Your task to perform on an android device: open chrome privacy settings Image 0: 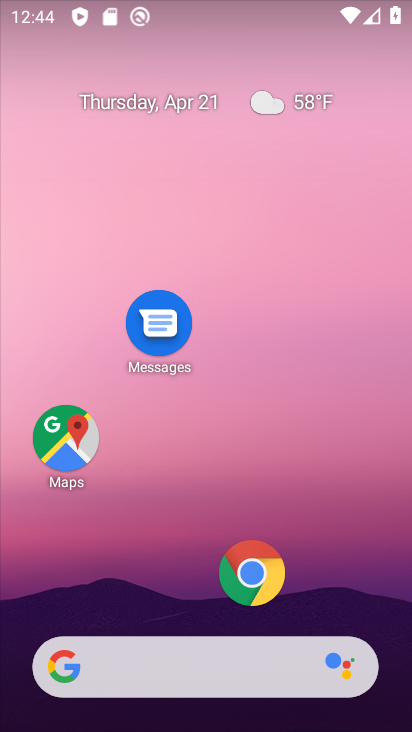
Step 0: click (252, 575)
Your task to perform on an android device: open chrome privacy settings Image 1: 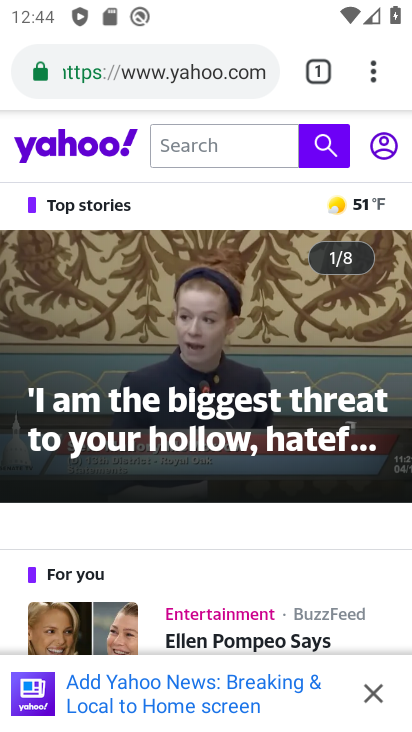
Step 1: click (375, 72)
Your task to perform on an android device: open chrome privacy settings Image 2: 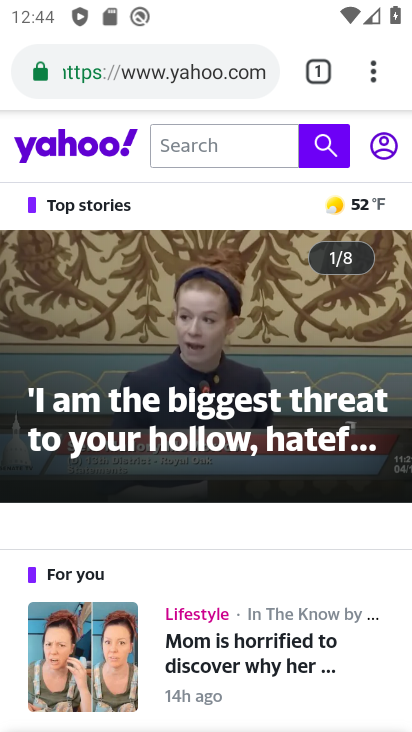
Step 2: click (369, 69)
Your task to perform on an android device: open chrome privacy settings Image 3: 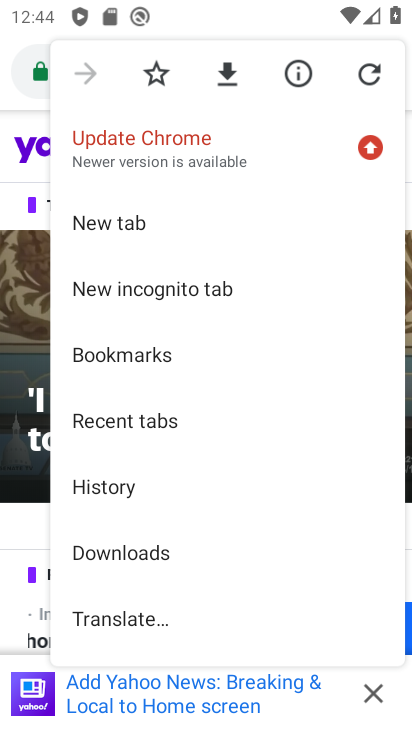
Step 3: drag from (208, 411) to (261, 119)
Your task to perform on an android device: open chrome privacy settings Image 4: 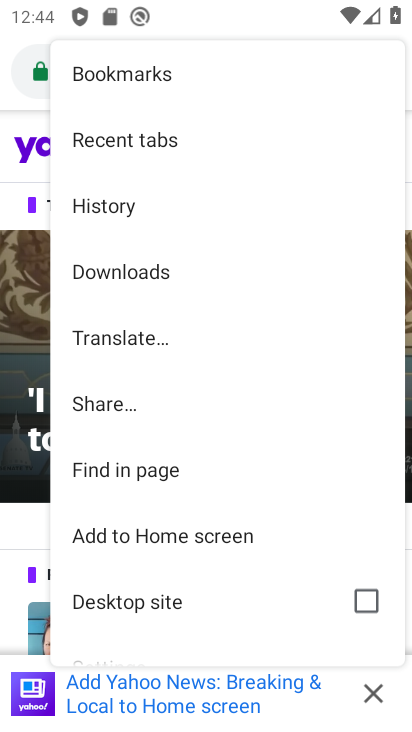
Step 4: drag from (165, 573) to (220, 132)
Your task to perform on an android device: open chrome privacy settings Image 5: 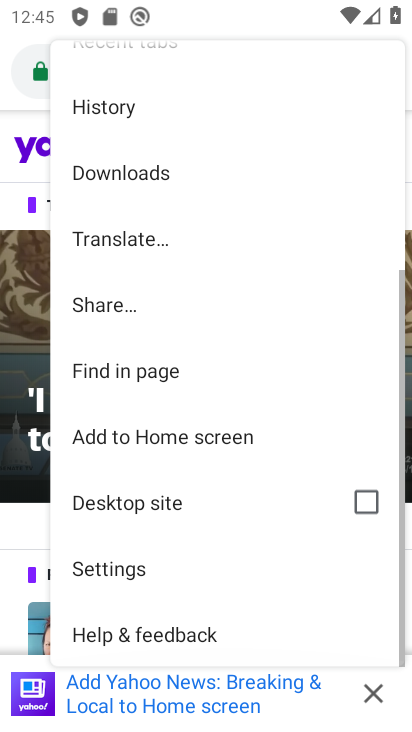
Step 5: click (110, 554)
Your task to perform on an android device: open chrome privacy settings Image 6: 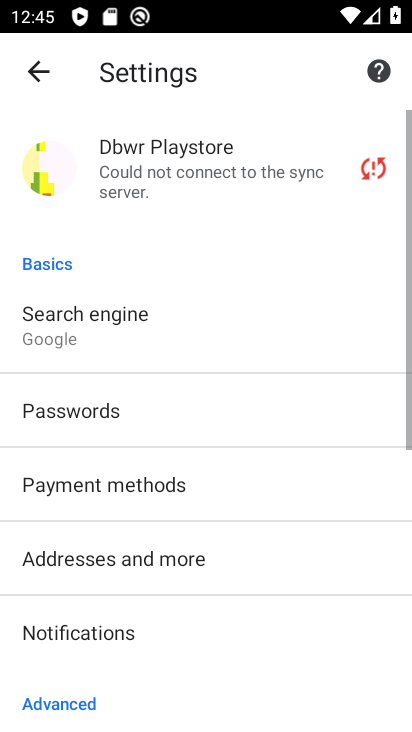
Step 6: drag from (168, 518) to (203, 95)
Your task to perform on an android device: open chrome privacy settings Image 7: 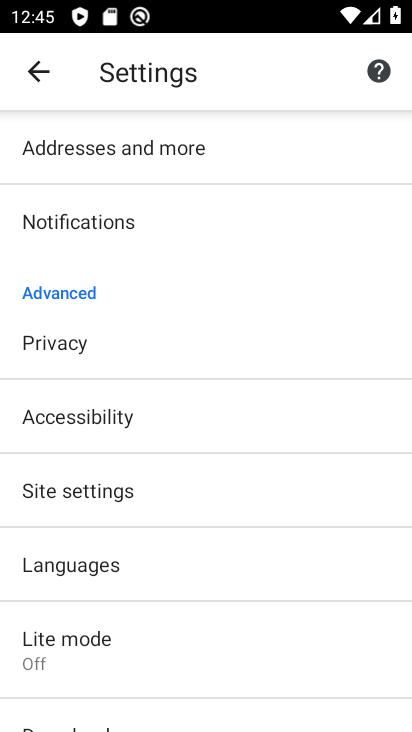
Step 7: click (82, 351)
Your task to perform on an android device: open chrome privacy settings Image 8: 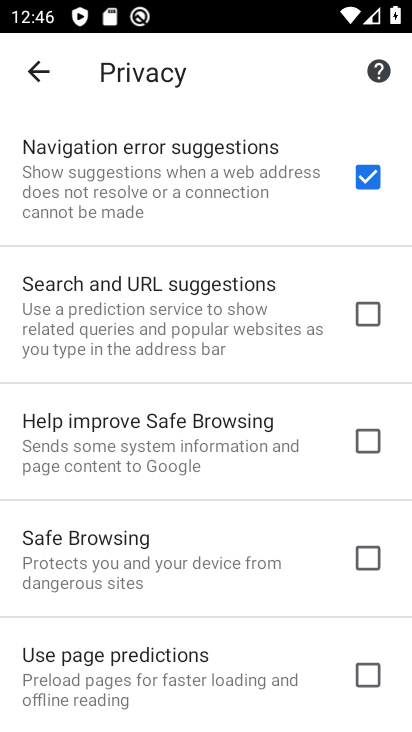
Step 8: task complete